Your task to perform on an android device: install app "Life360: Find Family & Friends" Image 0: 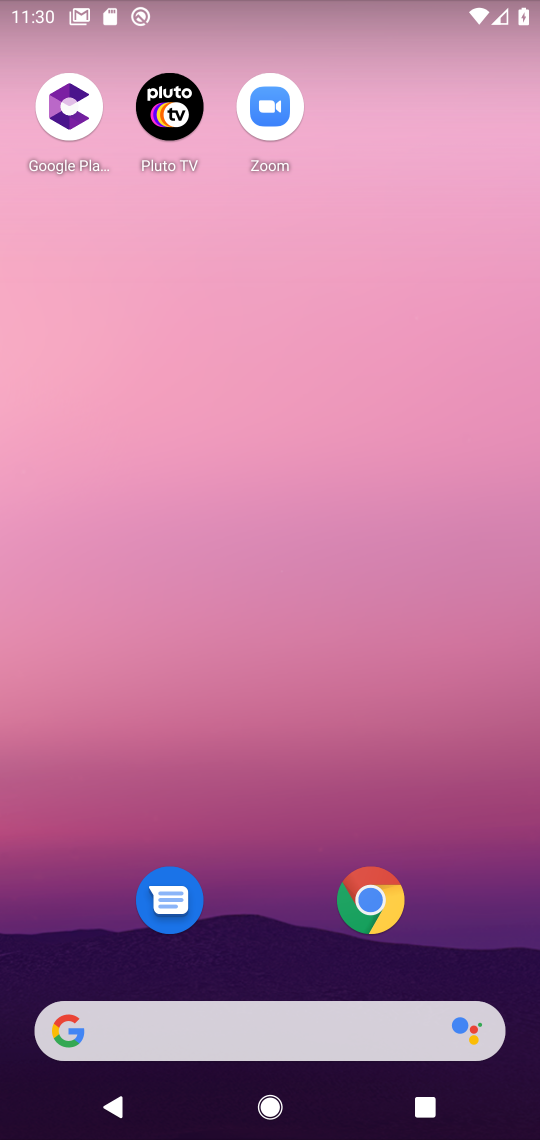
Step 0: drag from (296, 962) to (270, 224)
Your task to perform on an android device: install app "Life360: Find Family & Friends" Image 1: 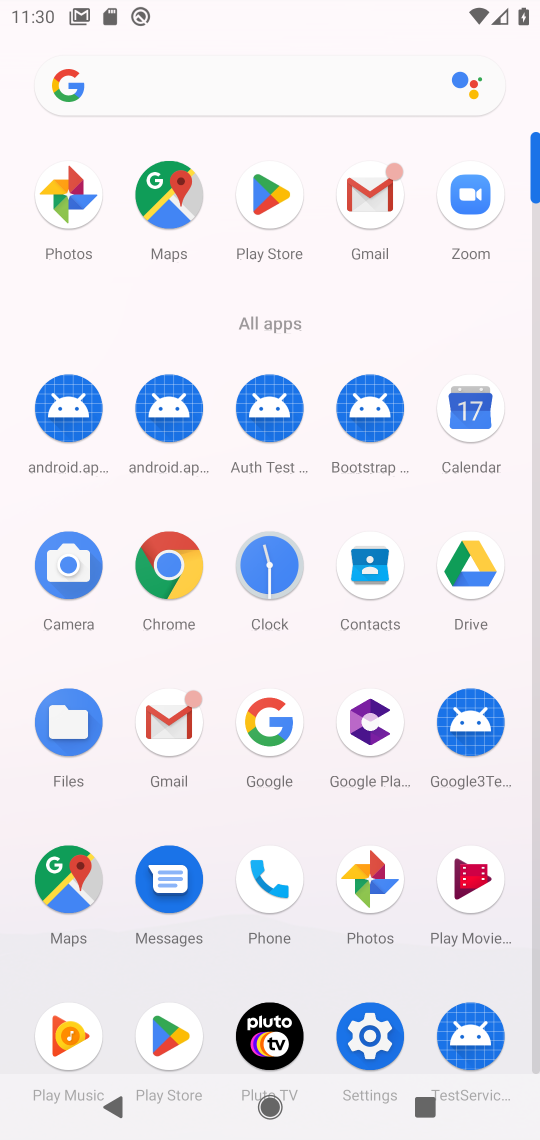
Step 1: click (270, 218)
Your task to perform on an android device: install app "Life360: Find Family & Friends" Image 2: 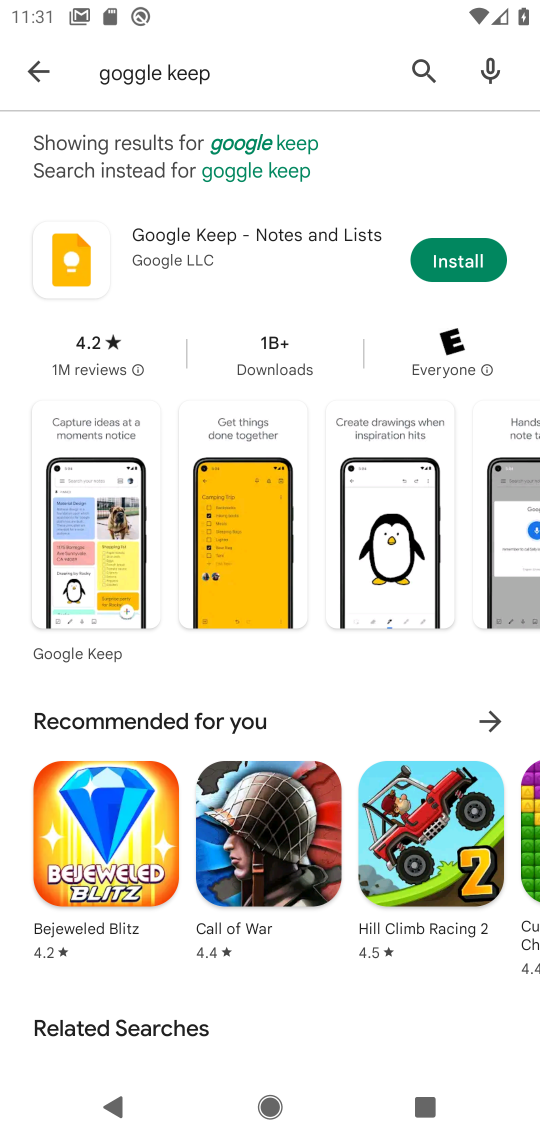
Step 2: click (432, 65)
Your task to perform on an android device: install app "Life360: Find Family & Friends" Image 3: 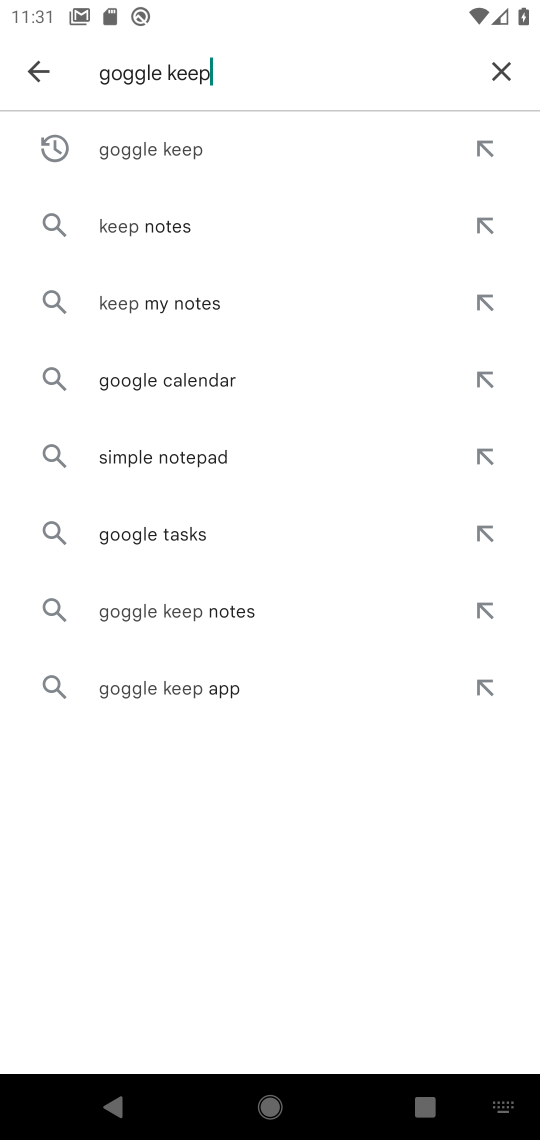
Step 3: click (500, 59)
Your task to perform on an android device: install app "Life360: Find Family & Friends" Image 4: 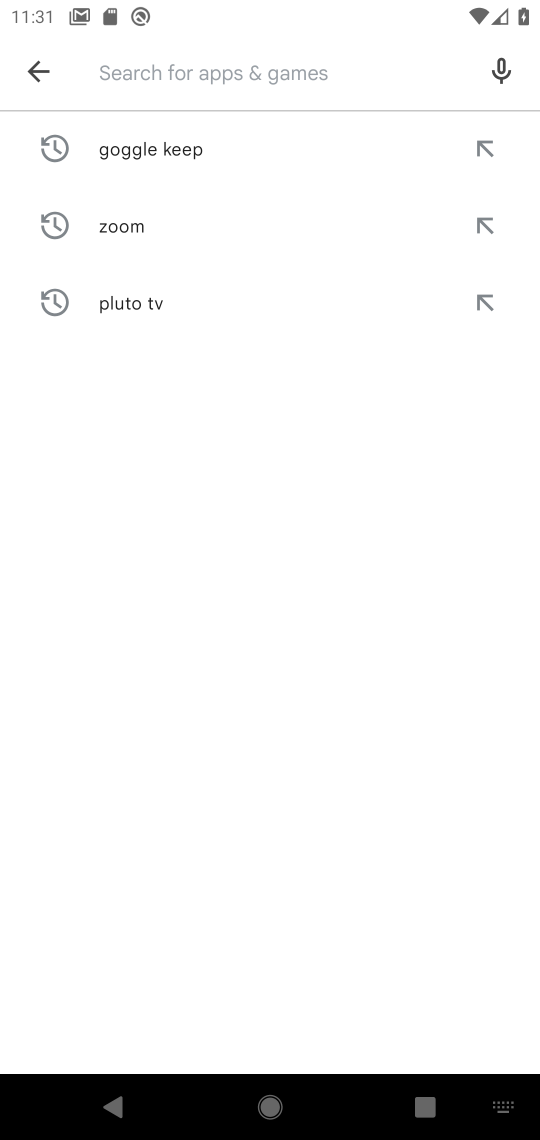
Step 4: click (212, 78)
Your task to perform on an android device: install app "Life360: Find Family & Friends" Image 5: 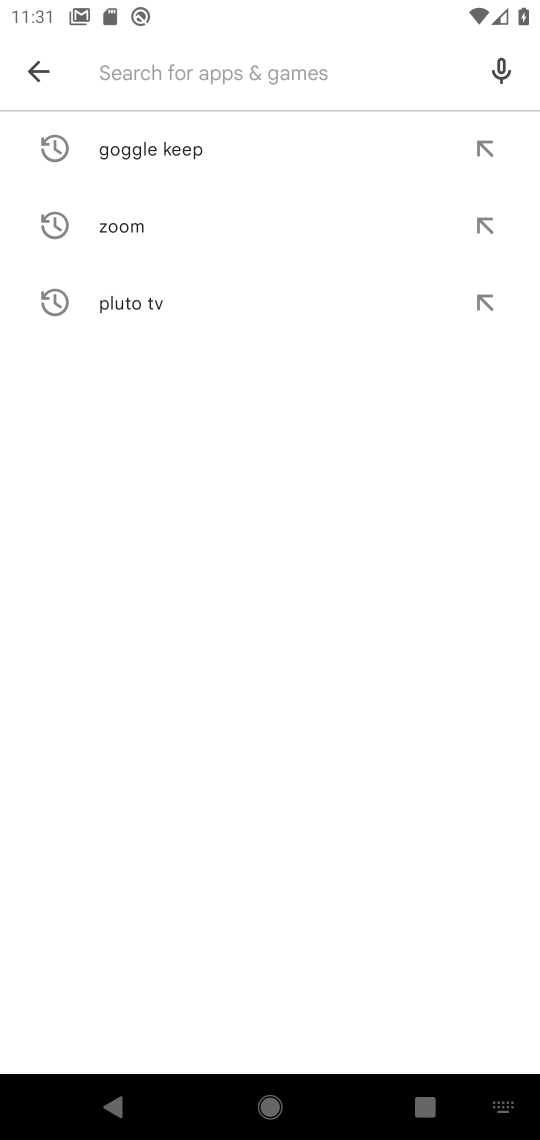
Step 5: type "life 360"
Your task to perform on an android device: install app "Life360: Find Family & Friends" Image 6: 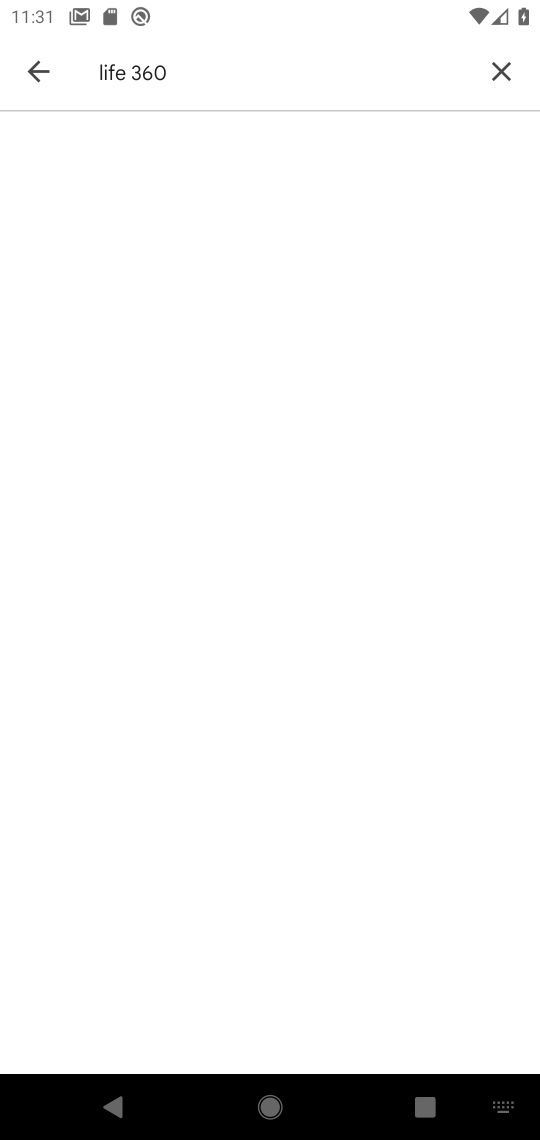
Step 6: click (503, 60)
Your task to perform on an android device: install app "Life360: Find Family & Friends" Image 7: 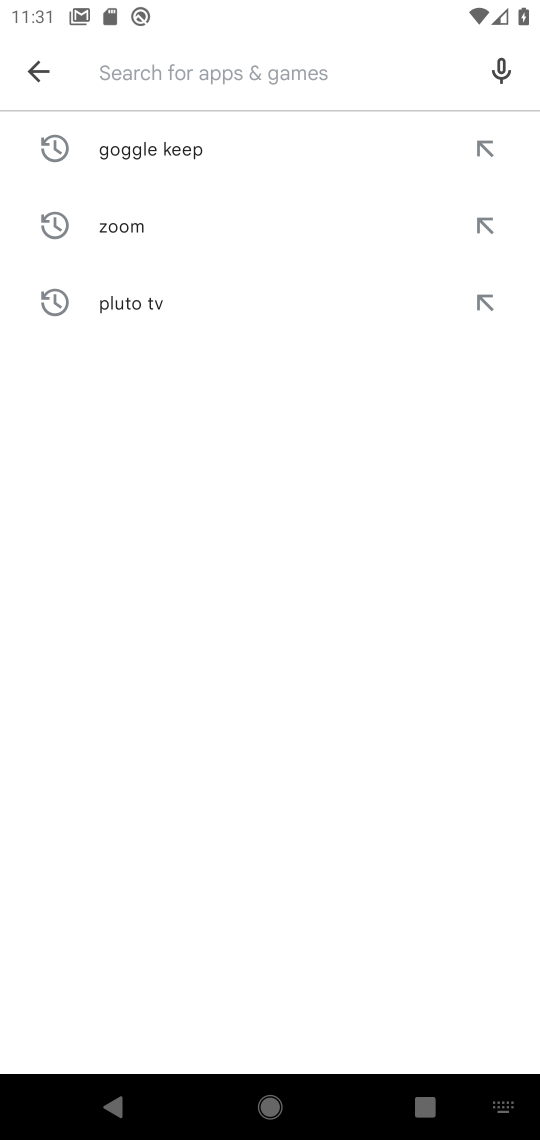
Step 7: type "life360"
Your task to perform on an android device: install app "Life360: Find Family & Friends" Image 8: 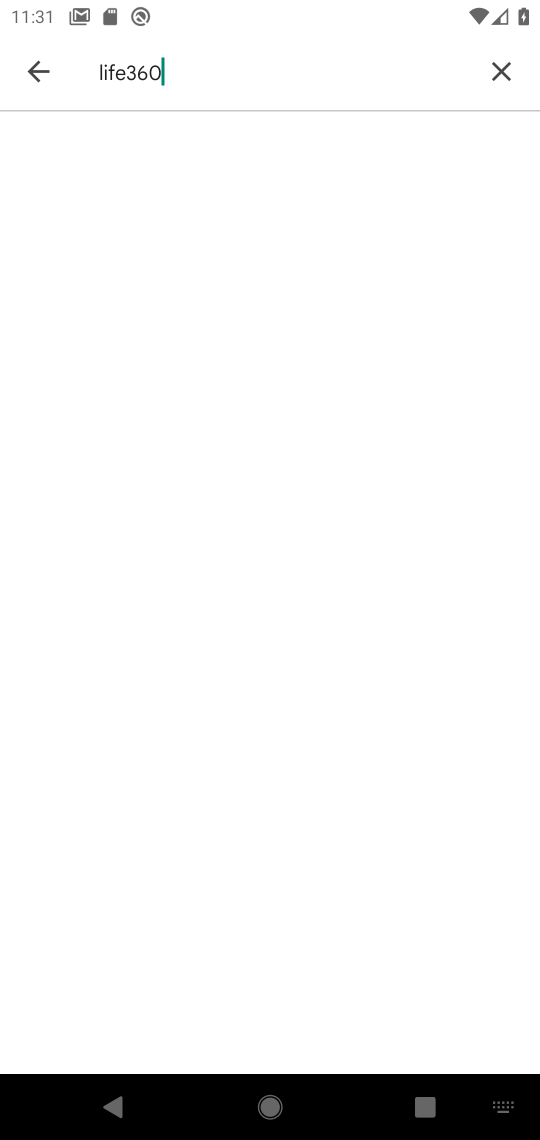
Step 8: task complete